Your task to perform on an android device: move an email to a new category in the gmail app Image 0: 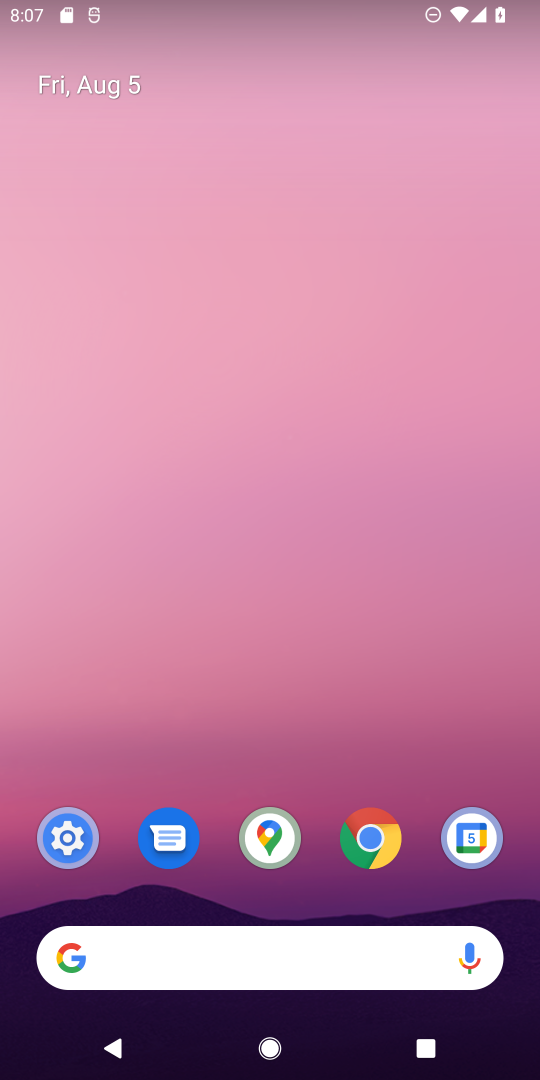
Step 0: drag from (287, 931) to (322, 359)
Your task to perform on an android device: move an email to a new category in the gmail app Image 1: 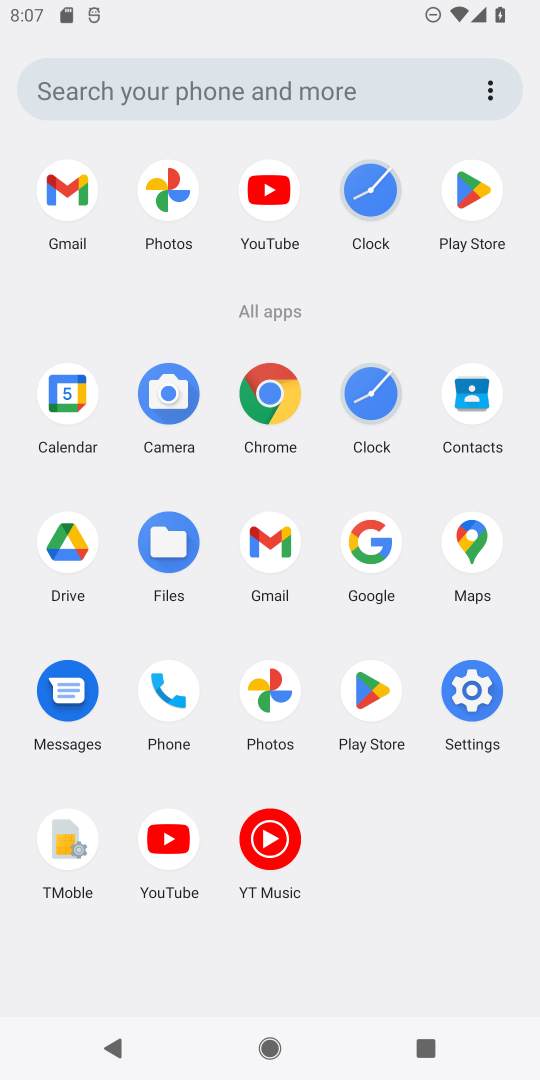
Step 1: click (78, 189)
Your task to perform on an android device: move an email to a new category in the gmail app Image 2: 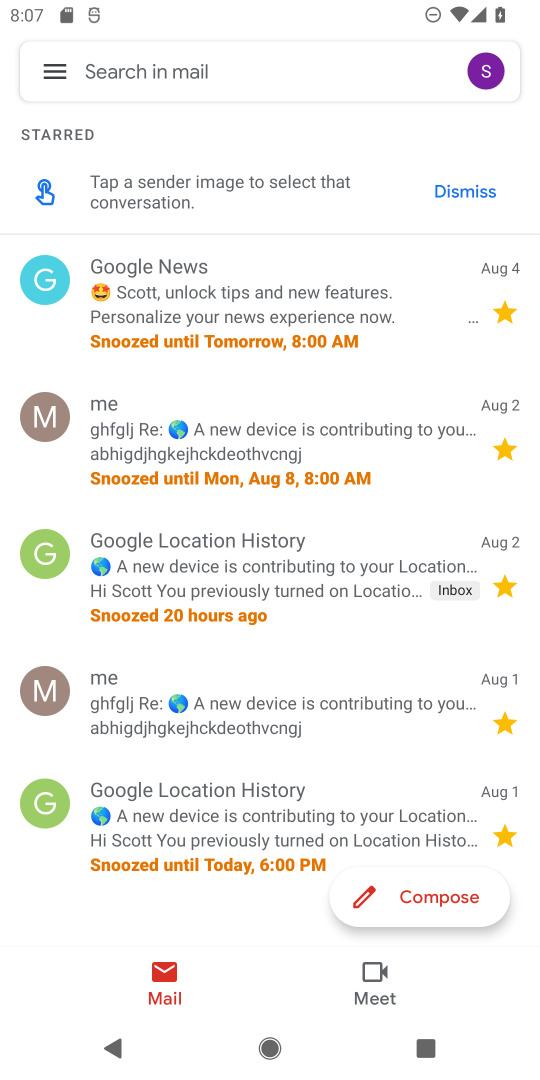
Step 2: click (58, 69)
Your task to perform on an android device: move an email to a new category in the gmail app Image 3: 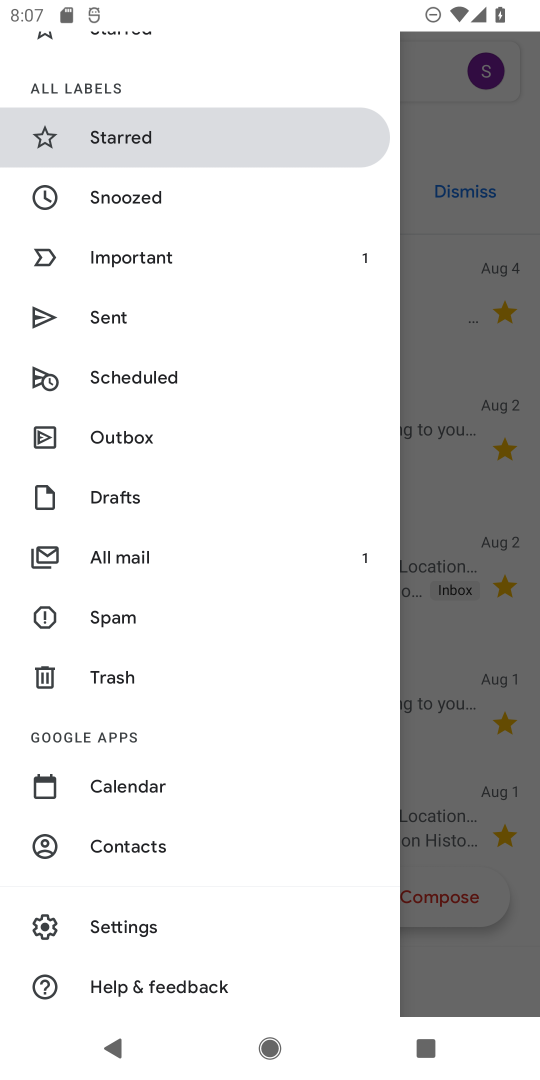
Step 3: drag from (147, 95) to (213, 597)
Your task to perform on an android device: move an email to a new category in the gmail app Image 4: 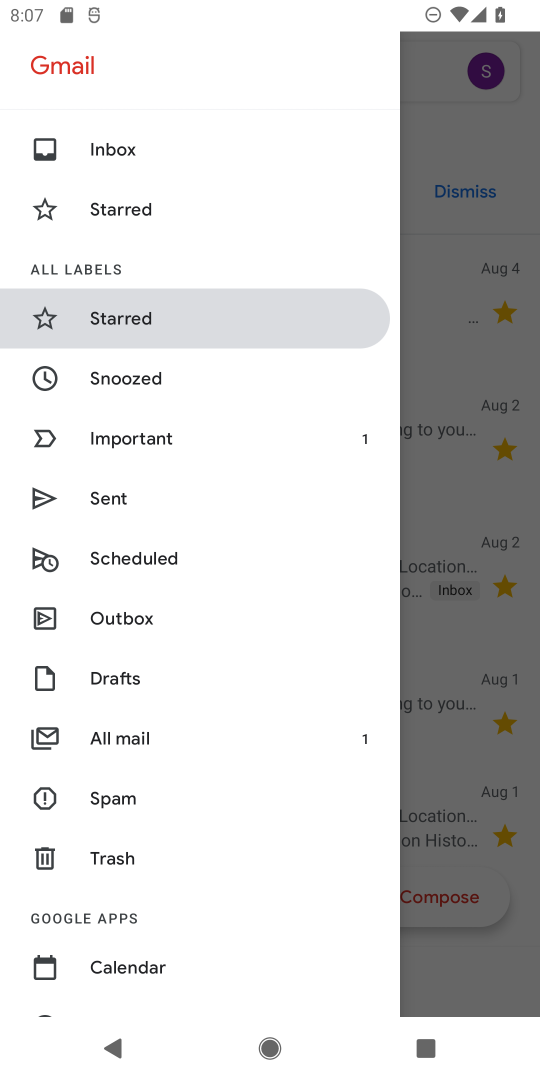
Step 4: click (112, 141)
Your task to perform on an android device: move an email to a new category in the gmail app Image 5: 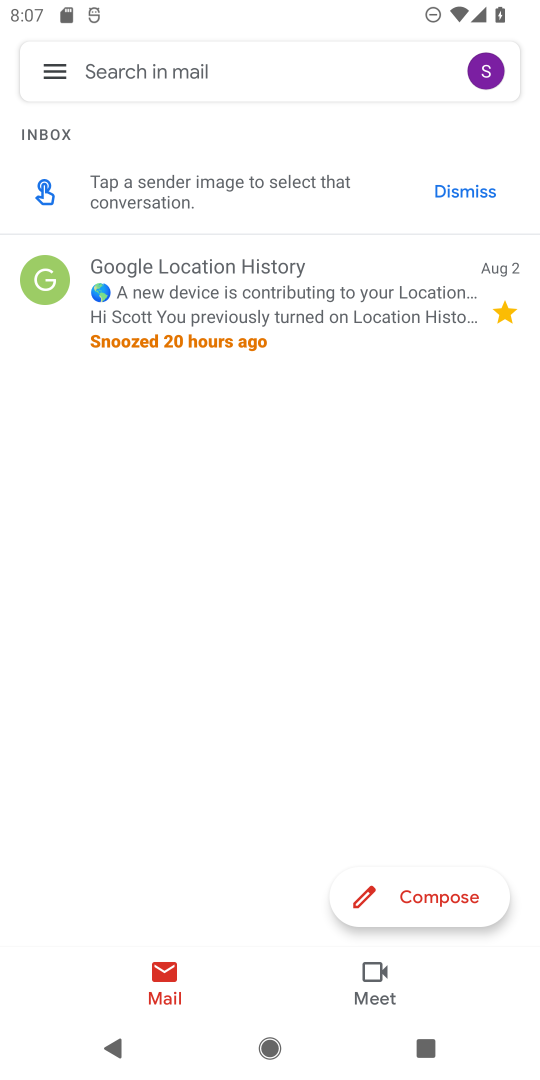
Step 5: click (240, 306)
Your task to perform on an android device: move an email to a new category in the gmail app Image 6: 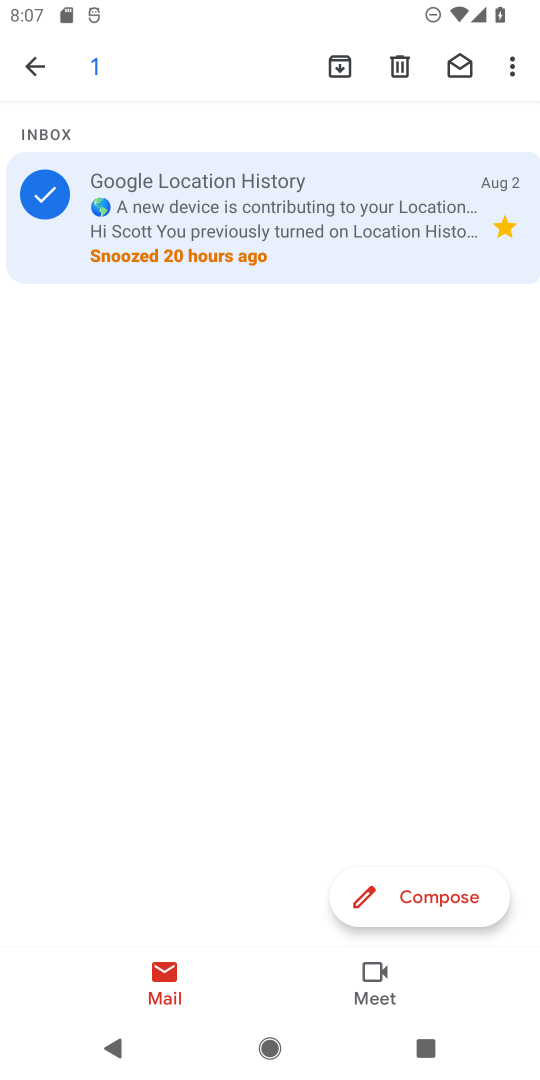
Step 6: click (505, 70)
Your task to perform on an android device: move an email to a new category in the gmail app Image 7: 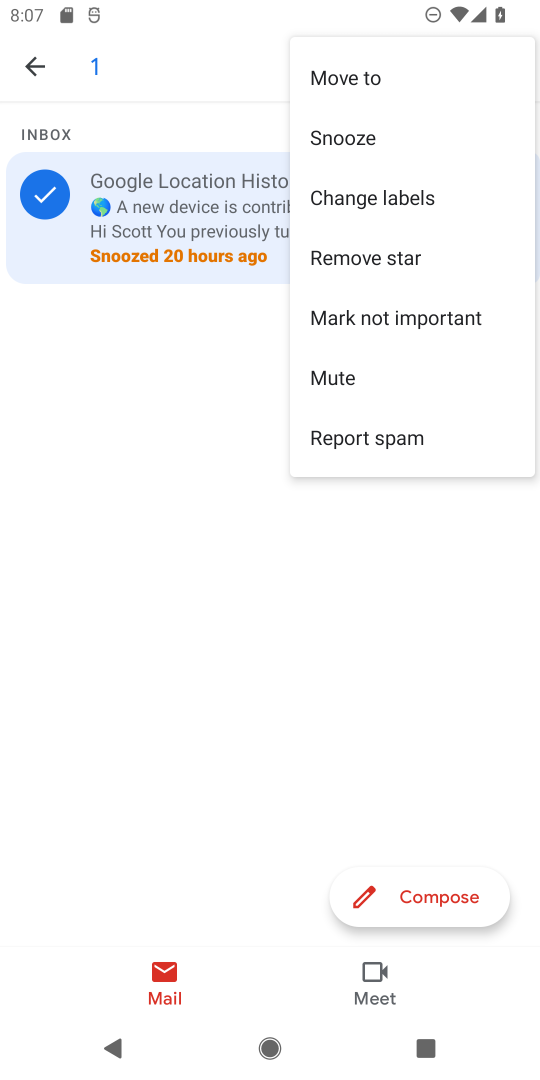
Step 7: click (350, 81)
Your task to perform on an android device: move an email to a new category in the gmail app Image 8: 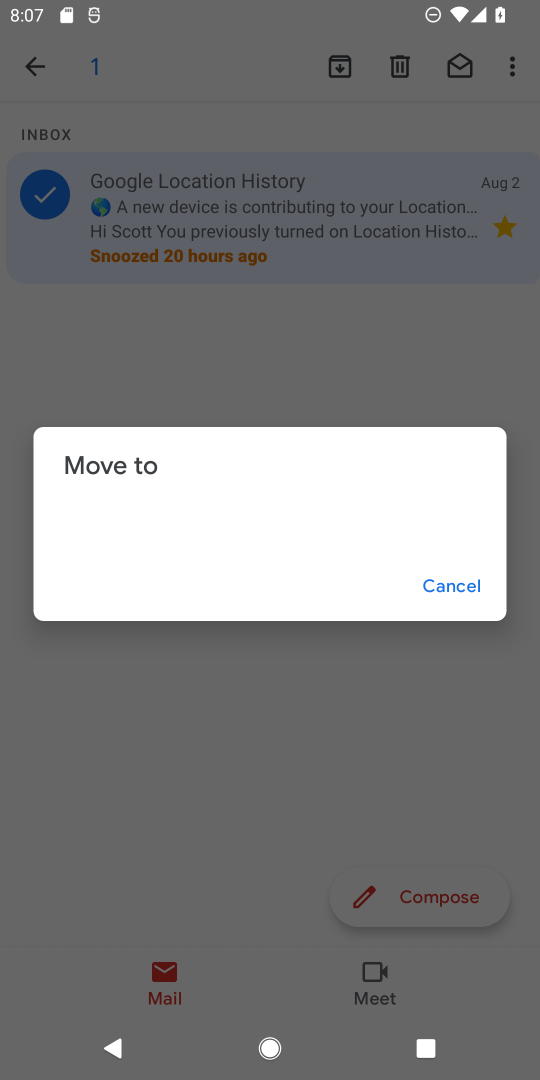
Step 8: click (440, 588)
Your task to perform on an android device: move an email to a new category in the gmail app Image 9: 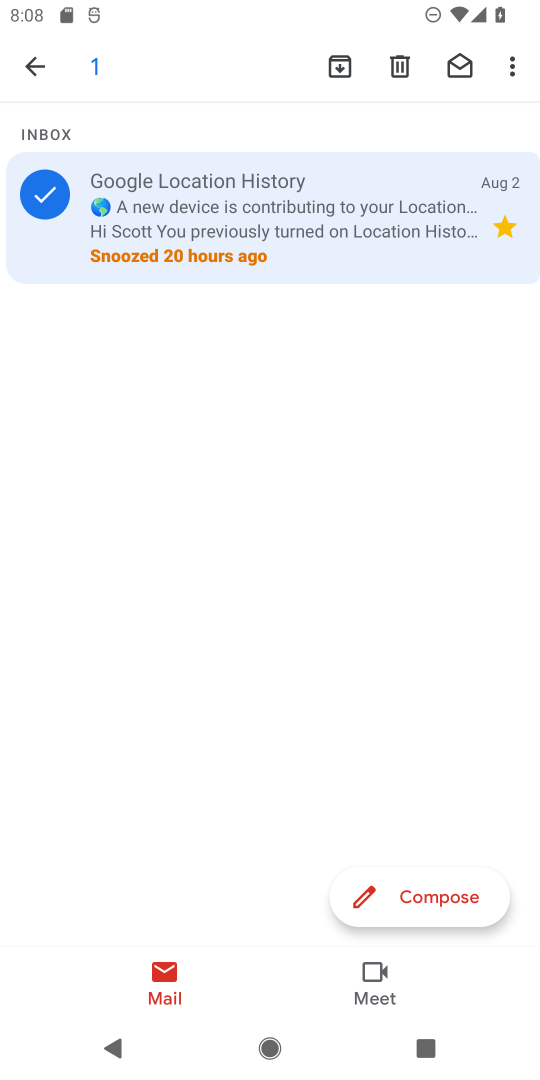
Step 9: task complete